Your task to perform on an android device: change the clock display to show seconds Image 0: 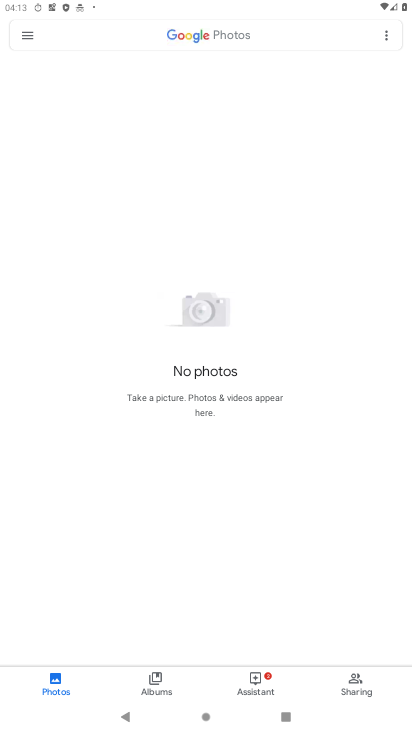
Step 0: press home button
Your task to perform on an android device: change the clock display to show seconds Image 1: 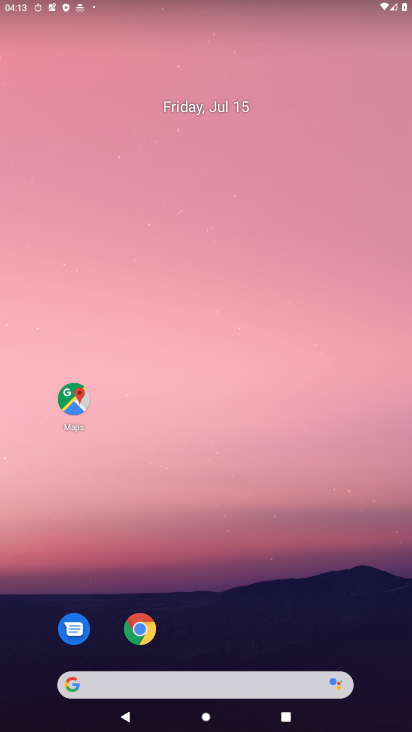
Step 1: drag from (225, 615) to (259, 5)
Your task to perform on an android device: change the clock display to show seconds Image 2: 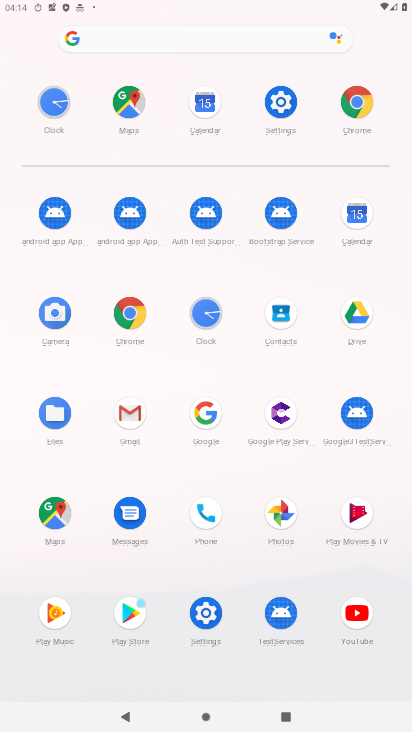
Step 2: click (210, 316)
Your task to perform on an android device: change the clock display to show seconds Image 3: 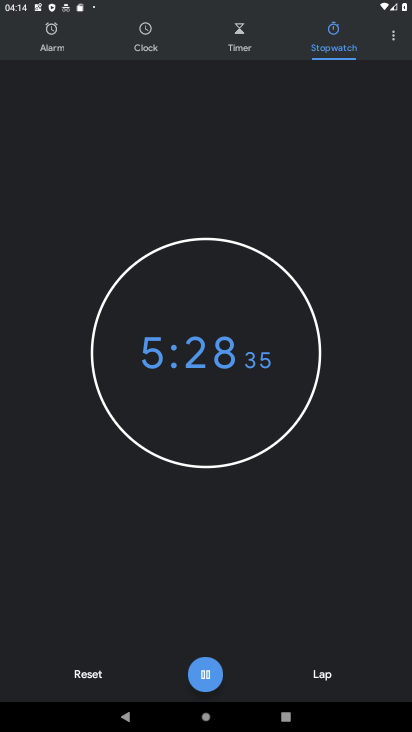
Step 3: click (394, 39)
Your task to perform on an android device: change the clock display to show seconds Image 4: 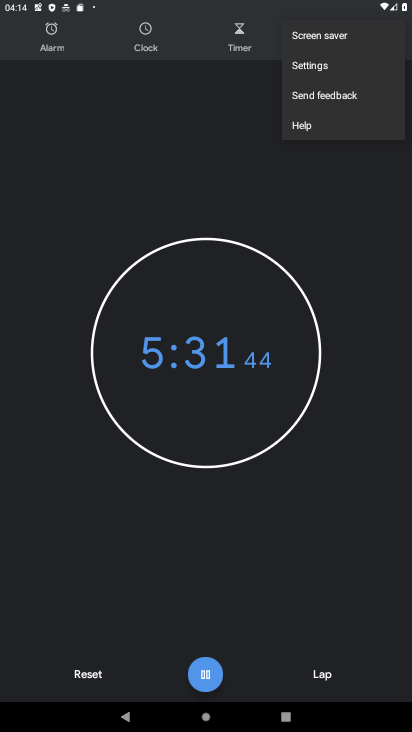
Step 4: click (341, 69)
Your task to perform on an android device: change the clock display to show seconds Image 5: 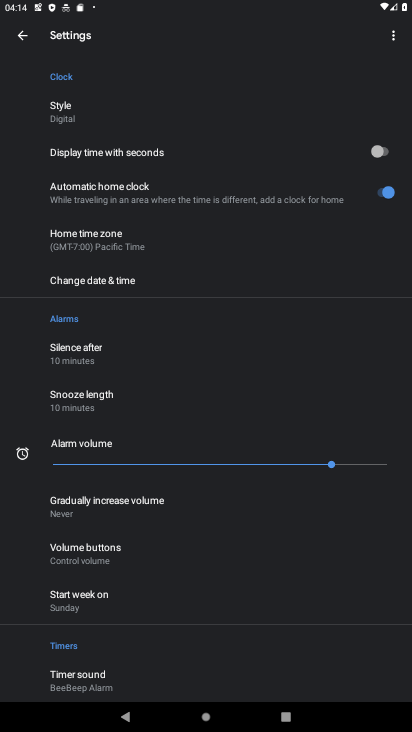
Step 5: click (180, 144)
Your task to perform on an android device: change the clock display to show seconds Image 6: 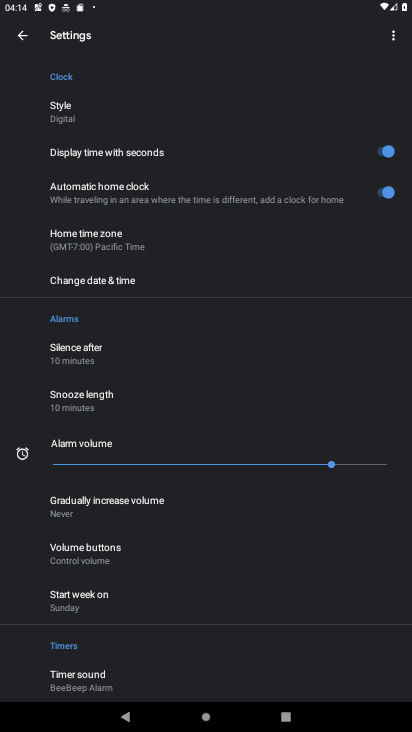
Step 6: task complete